Your task to perform on an android device: Go to internet settings Image 0: 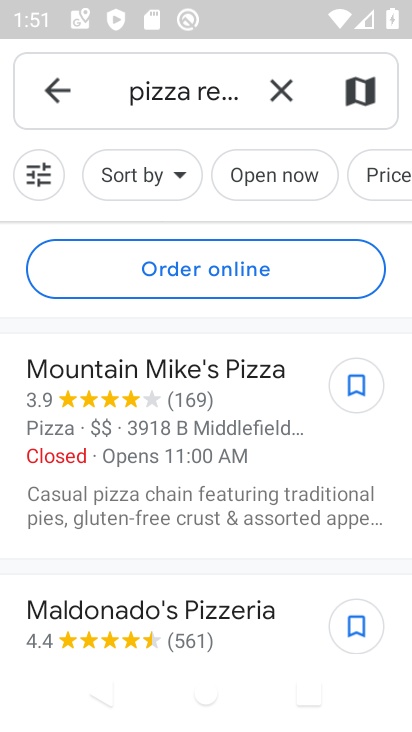
Step 0: press home button
Your task to perform on an android device: Go to internet settings Image 1: 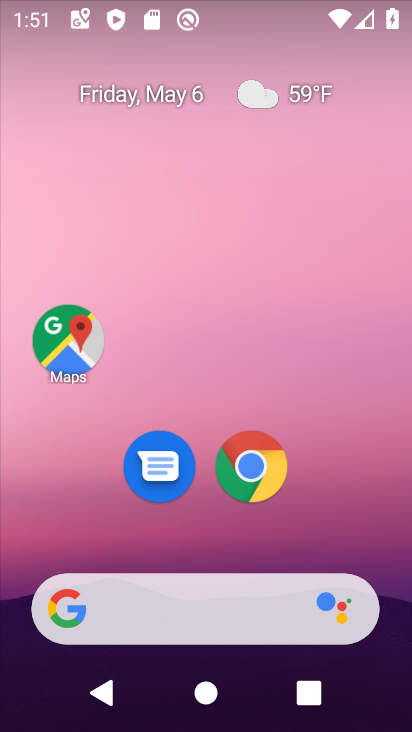
Step 1: drag from (214, 545) to (246, 17)
Your task to perform on an android device: Go to internet settings Image 2: 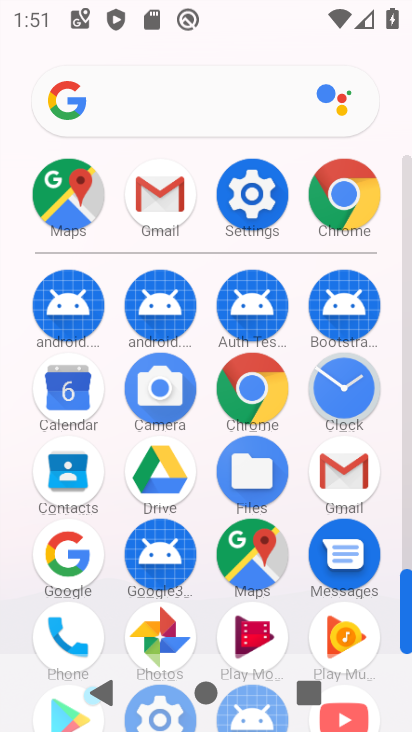
Step 2: click (247, 191)
Your task to perform on an android device: Go to internet settings Image 3: 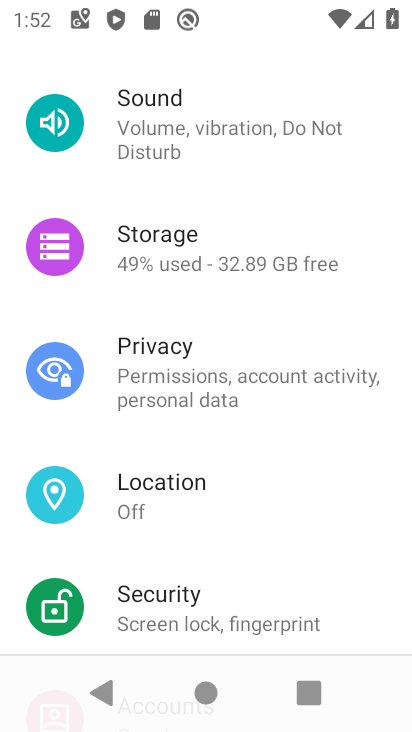
Step 3: drag from (182, 109) to (172, 674)
Your task to perform on an android device: Go to internet settings Image 4: 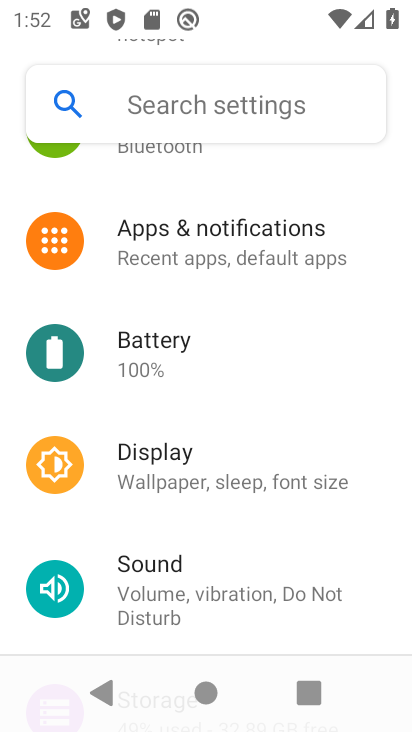
Step 4: drag from (153, 205) to (169, 704)
Your task to perform on an android device: Go to internet settings Image 5: 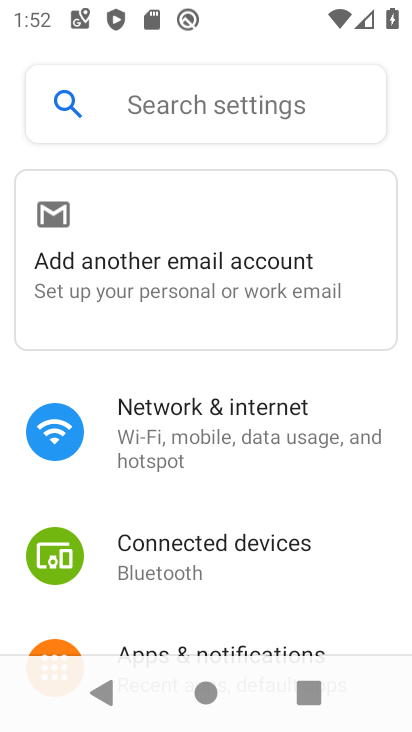
Step 5: click (172, 434)
Your task to perform on an android device: Go to internet settings Image 6: 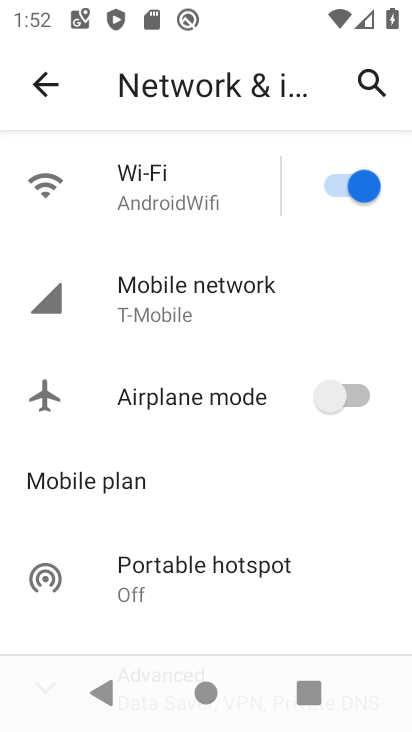
Step 6: drag from (191, 616) to (220, 137)
Your task to perform on an android device: Go to internet settings Image 7: 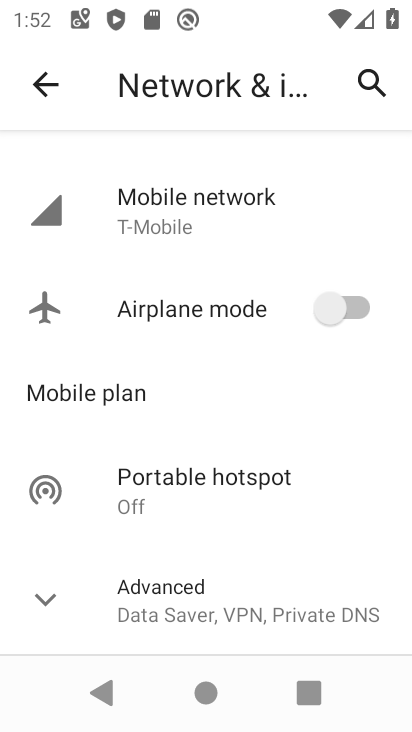
Step 7: click (41, 600)
Your task to perform on an android device: Go to internet settings Image 8: 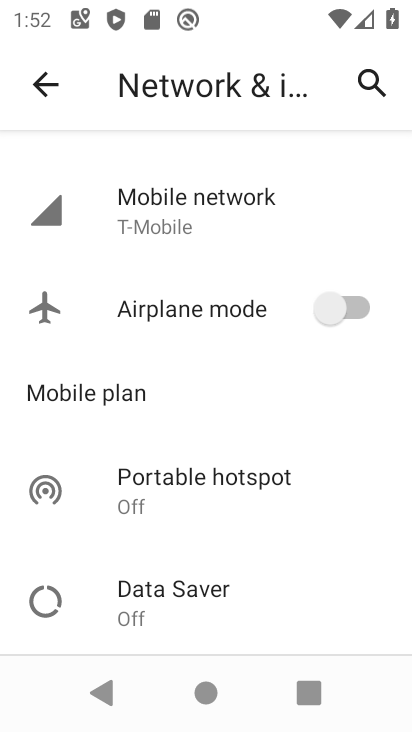
Step 8: task complete